Your task to perform on an android device: install app "Google Duo" Image 0: 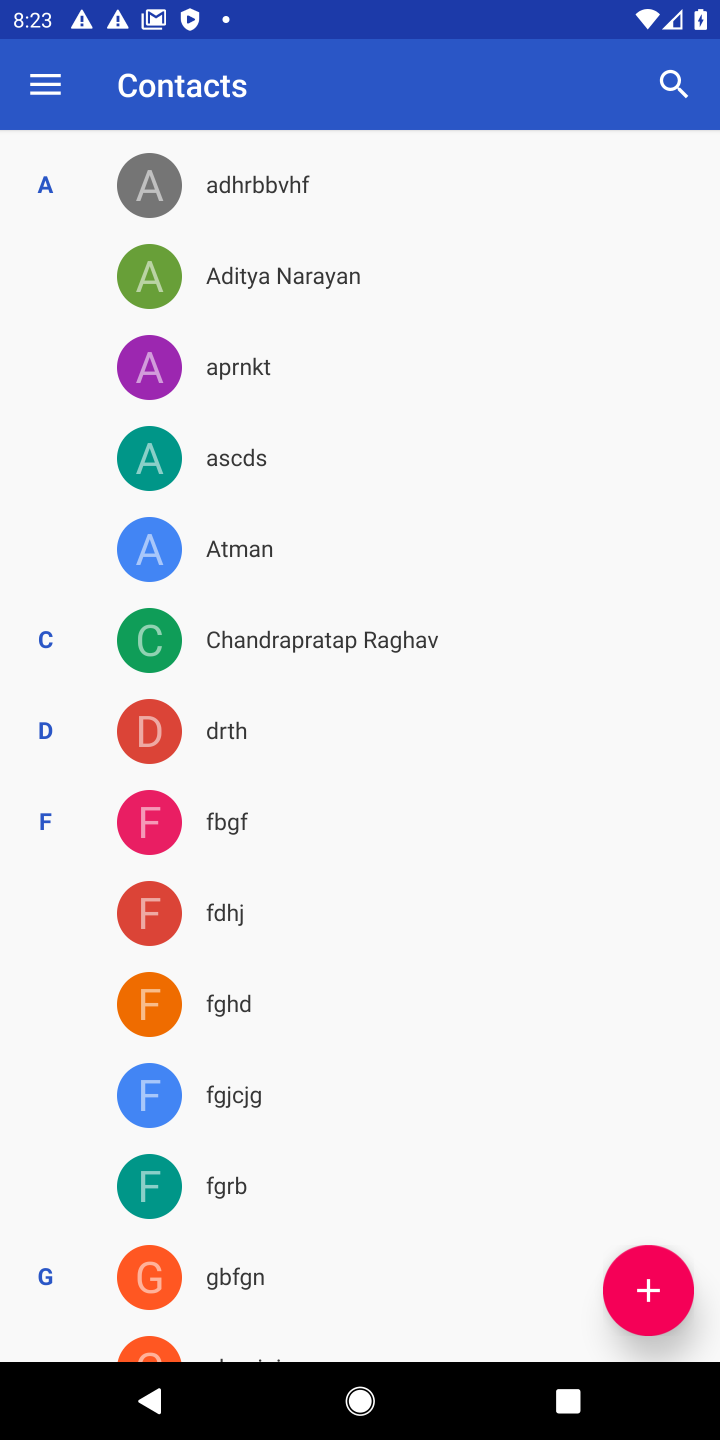
Step 0: press home button
Your task to perform on an android device: install app "Google Duo" Image 1: 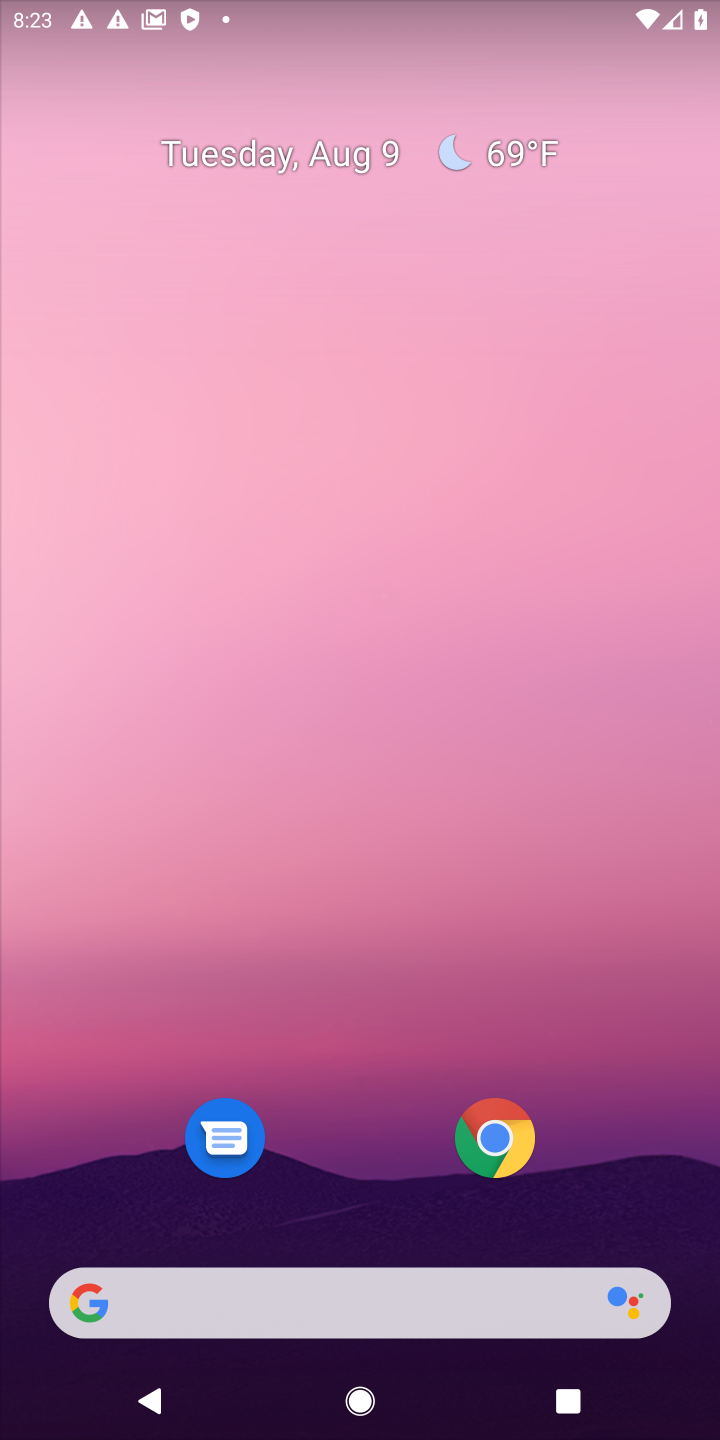
Step 1: drag from (352, 538) to (368, 52)
Your task to perform on an android device: install app "Google Duo" Image 2: 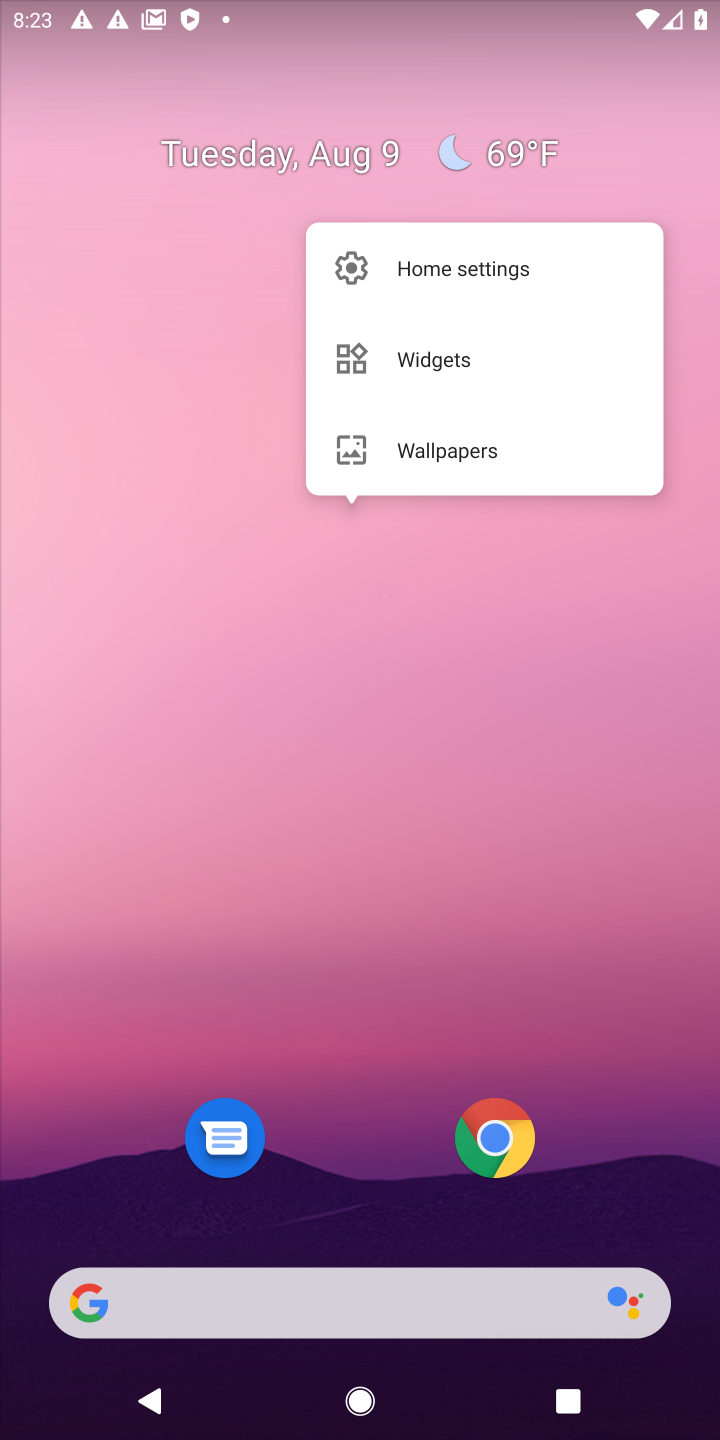
Step 2: click (397, 996)
Your task to perform on an android device: install app "Google Duo" Image 3: 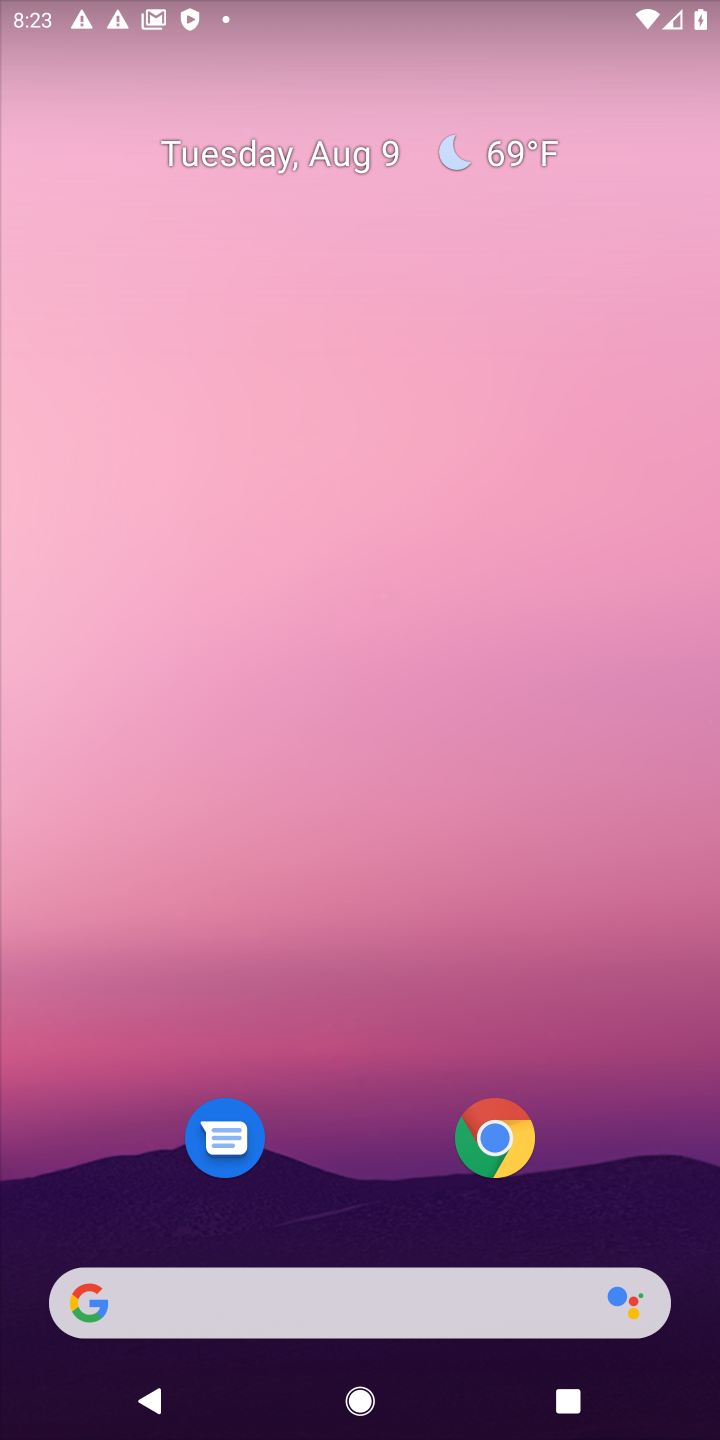
Step 3: drag from (368, 1237) to (359, 36)
Your task to perform on an android device: install app "Google Duo" Image 4: 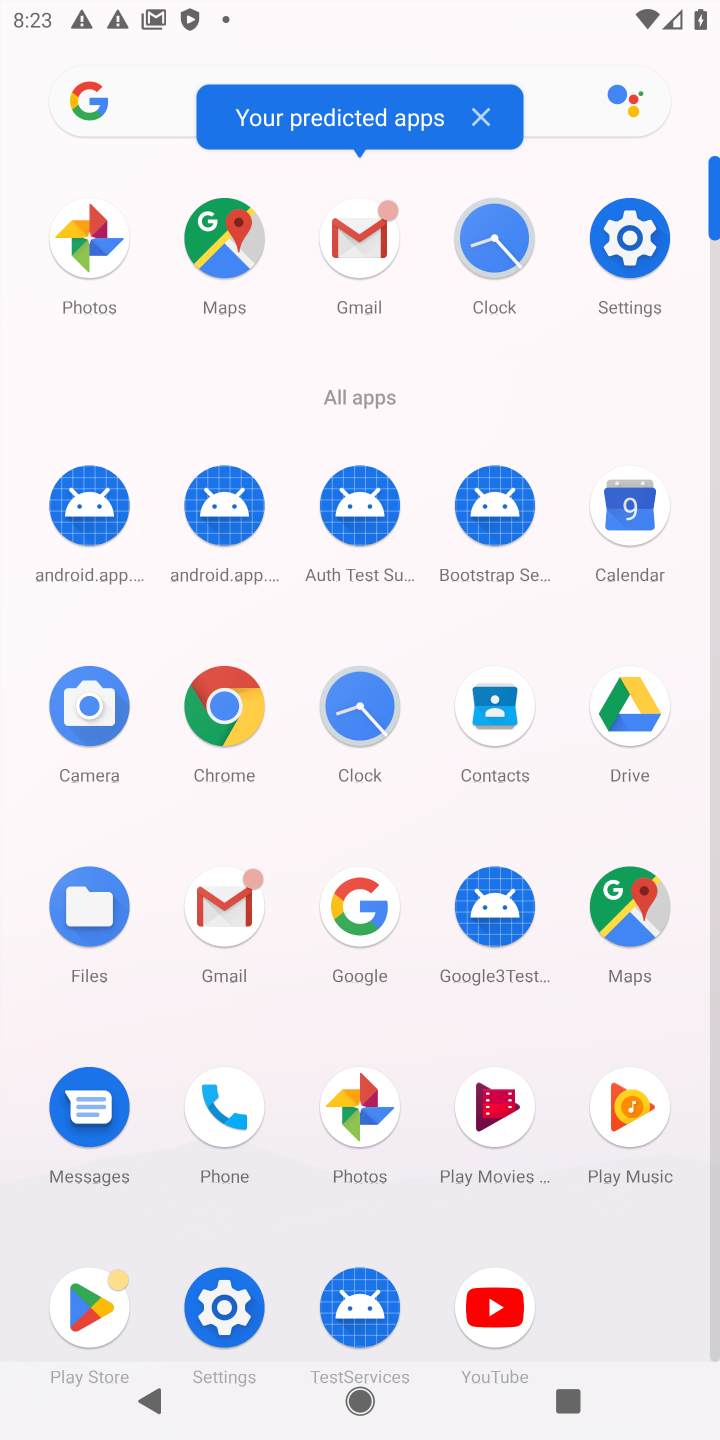
Step 4: click (81, 1337)
Your task to perform on an android device: install app "Google Duo" Image 5: 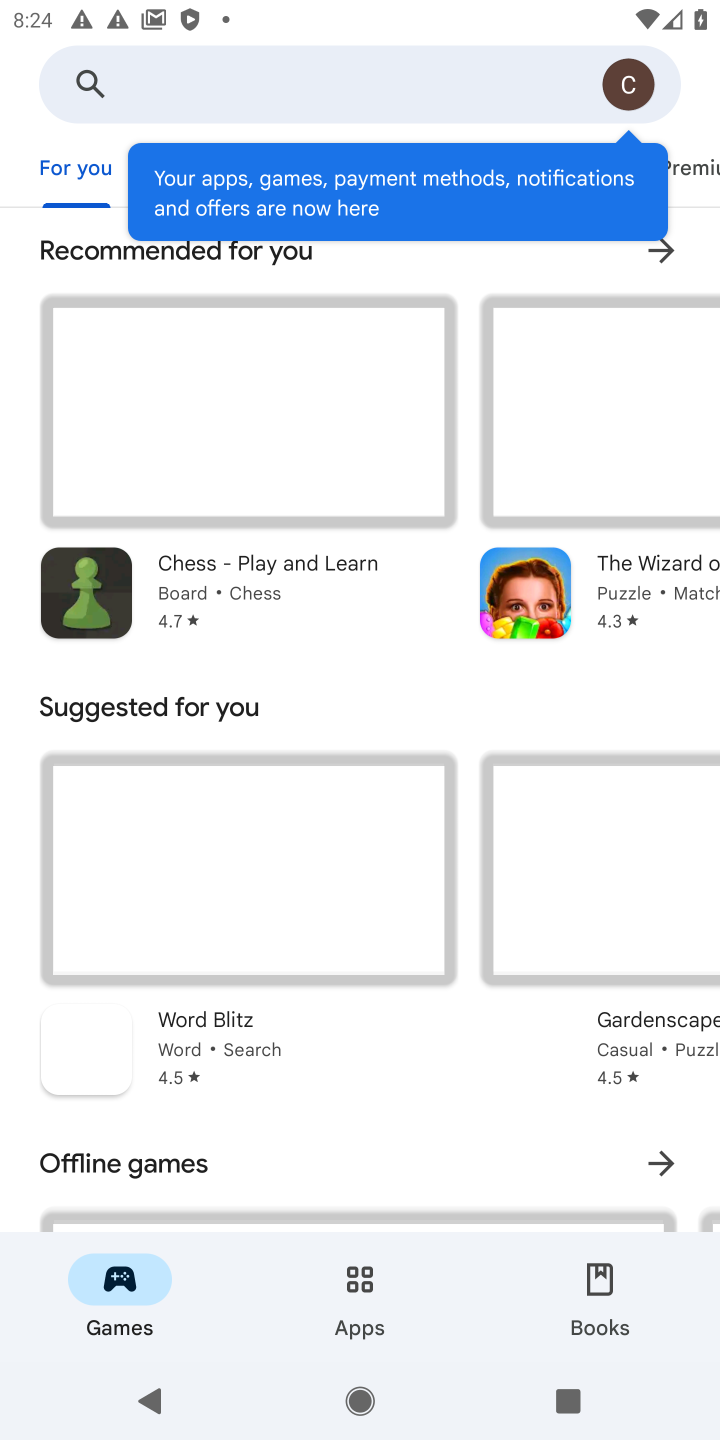
Step 5: click (432, 109)
Your task to perform on an android device: install app "Google Duo" Image 6: 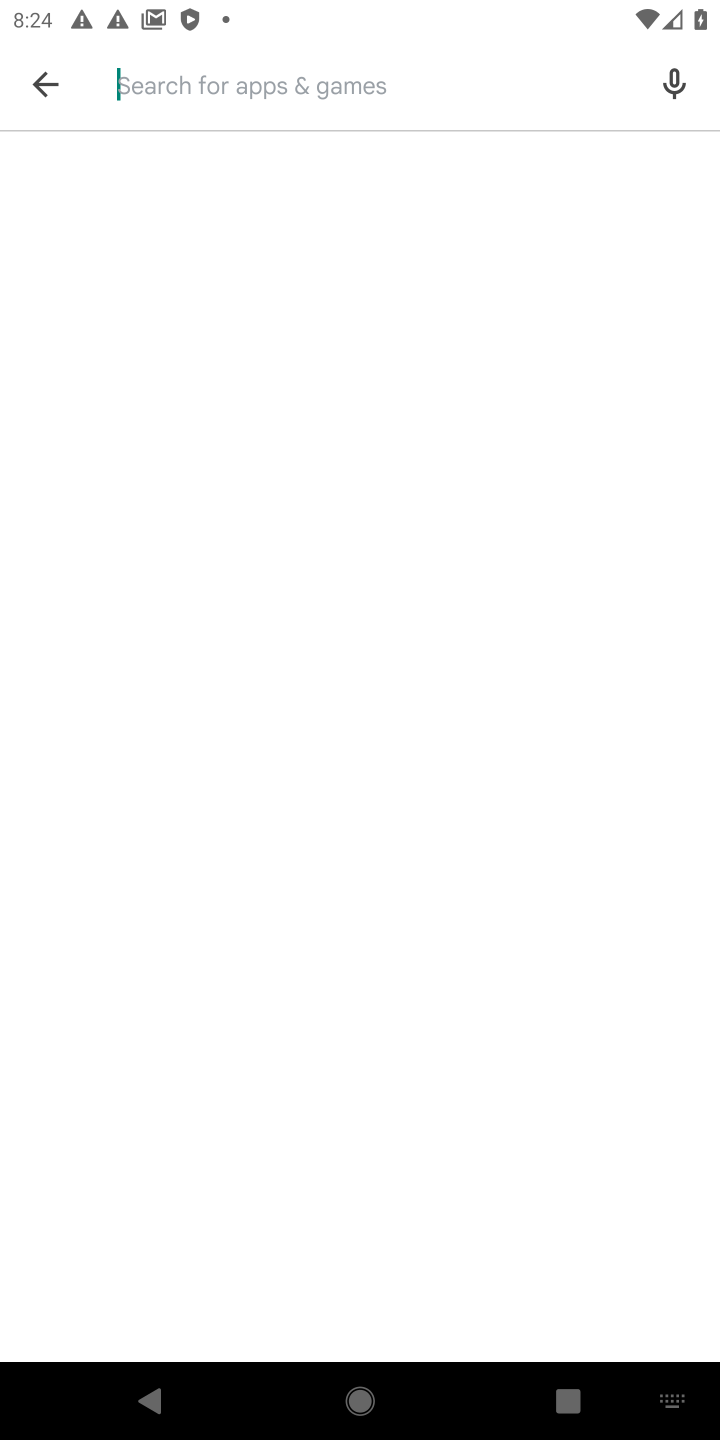
Step 6: type "duo"
Your task to perform on an android device: install app "Google Duo" Image 7: 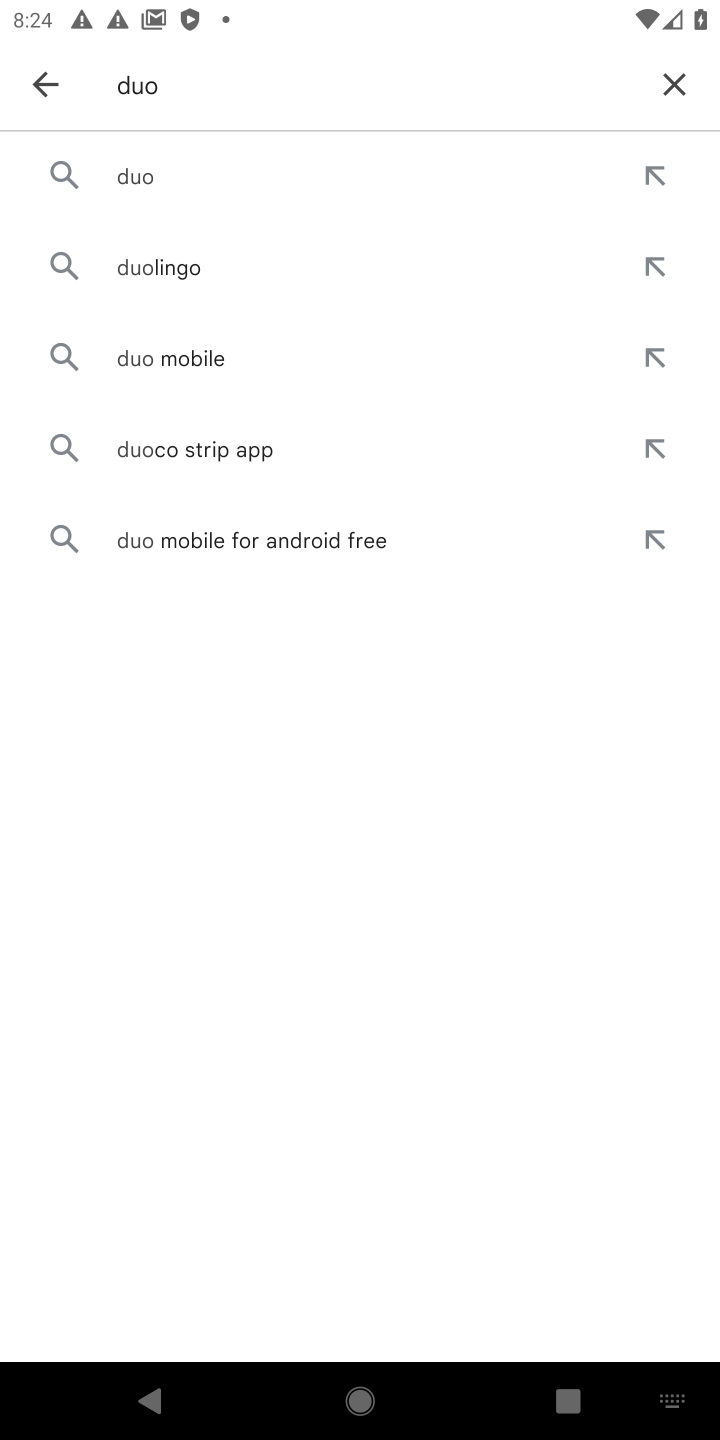
Step 7: click (210, 148)
Your task to perform on an android device: install app "Google Duo" Image 8: 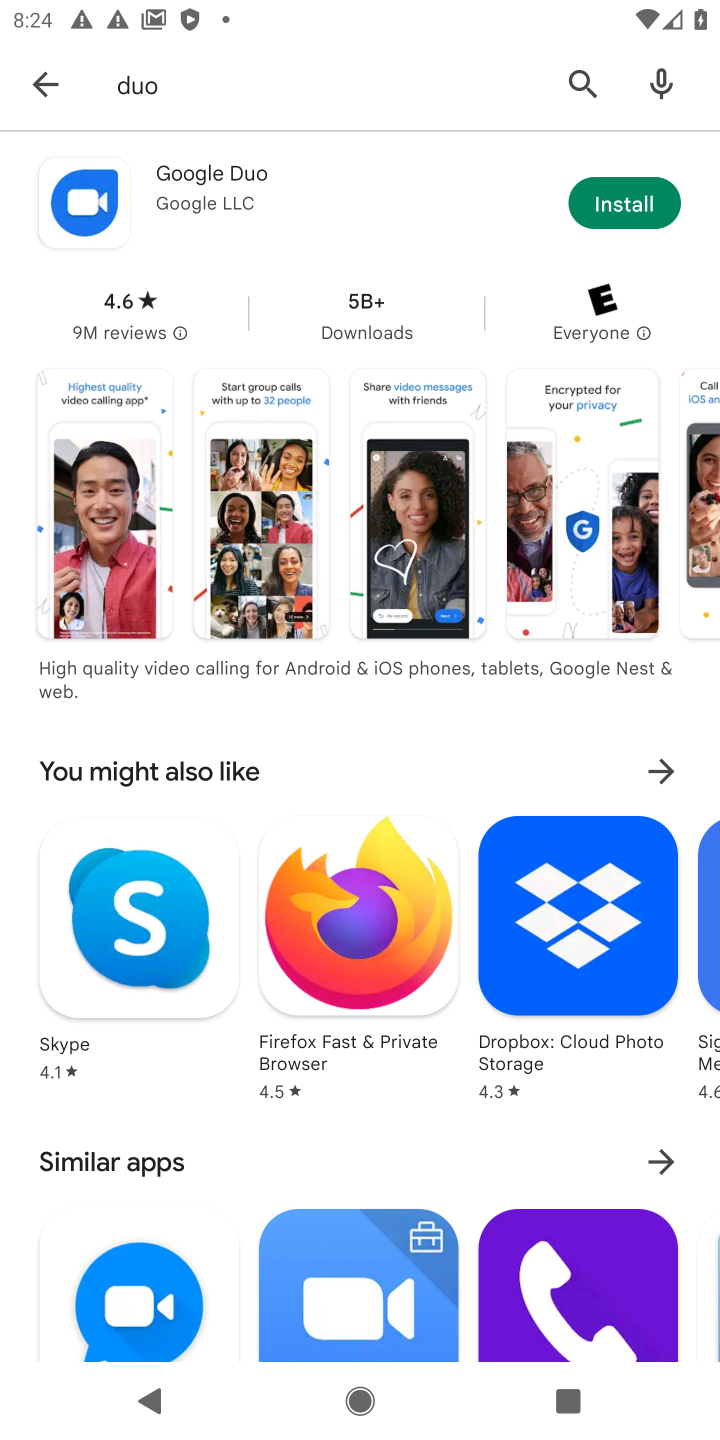
Step 8: click (591, 206)
Your task to perform on an android device: install app "Google Duo" Image 9: 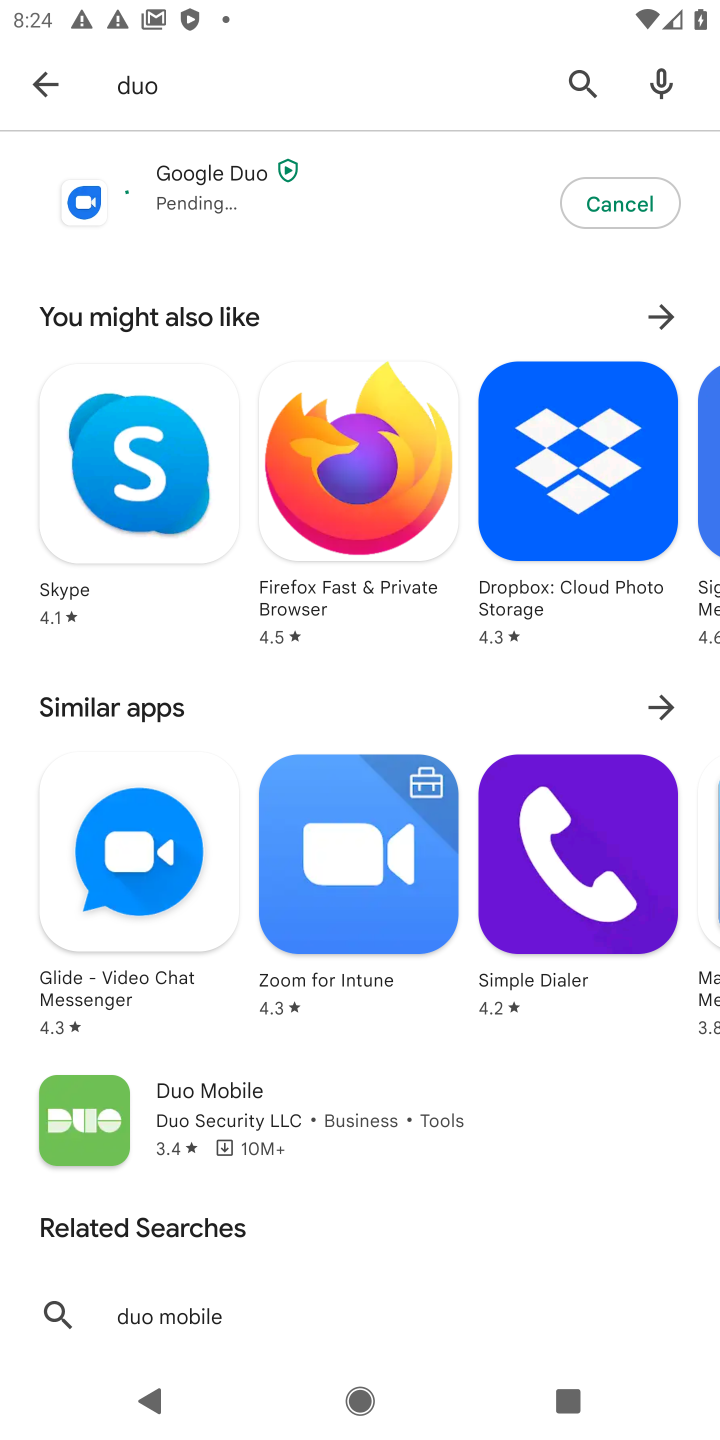
Step 9: task complete